Your task to perform on an android device: change the clock display to digital Image 0: 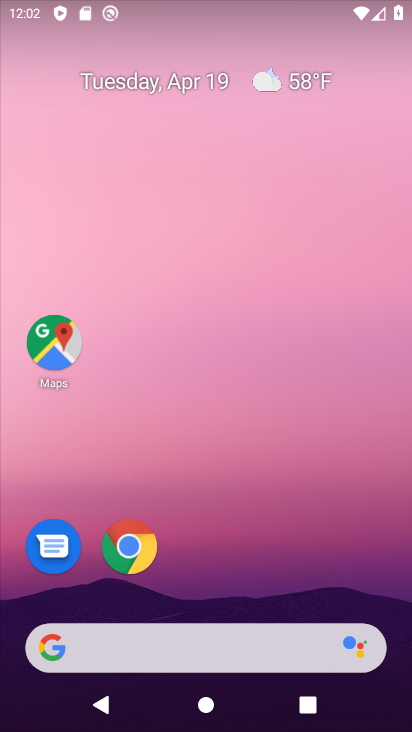
Step 0: drag from (217, 136) to (356, 1)
Your task to perform on an android device: change the clock display to digital Image 1: 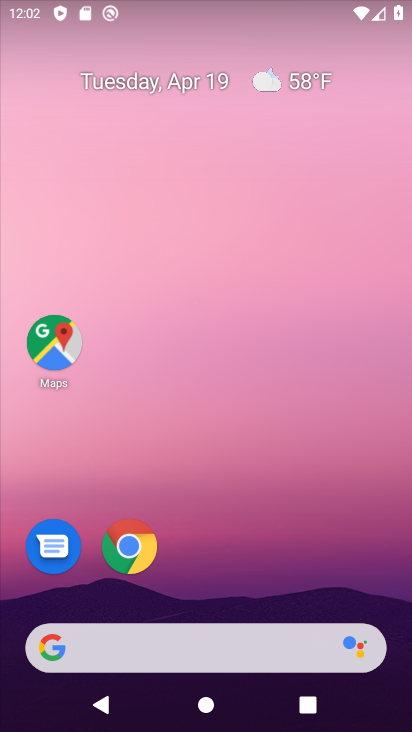
Step 1: drag from (199, 584) to (348, 6)
Your task to perform on an android device: change the clock display to digital Image 2: 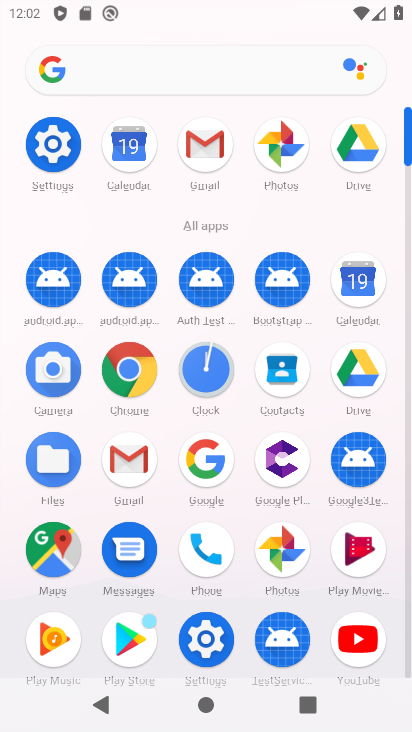
Step 2: click (201, 376)
Your task to perform on an android device: change the clock display to digital Image 3: 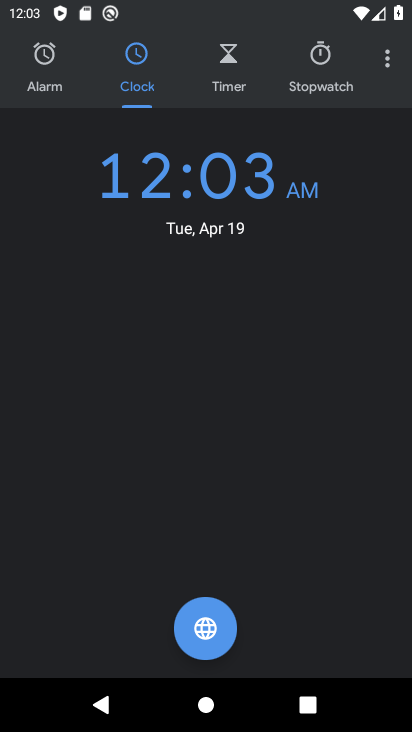
Step 3: click (391, 60)
Your task to perform on an android device: change the clock display to digital Image 4: 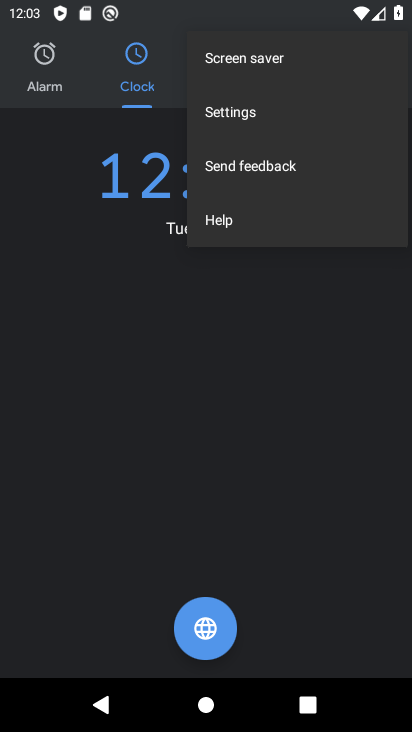
Step 4: click (254, 118)
Your task to perform on an android device: change the clock display to digital Image 5: 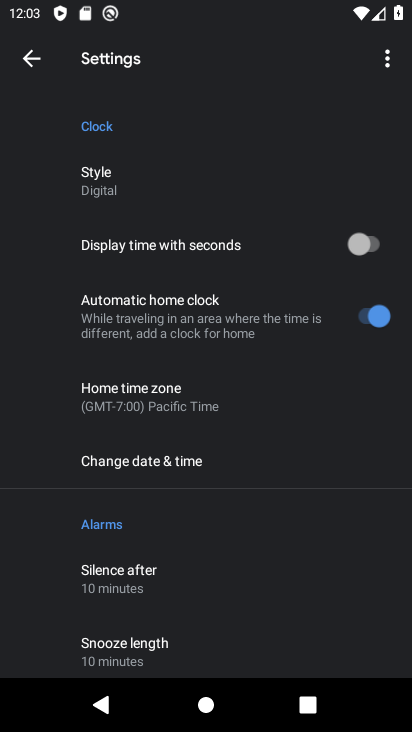
Step 5: task complete